Your task to perform on an android device: View the shopping cart on amazon. Add "logitech g903" to the cart on amazon, then select checkout. Image 0: 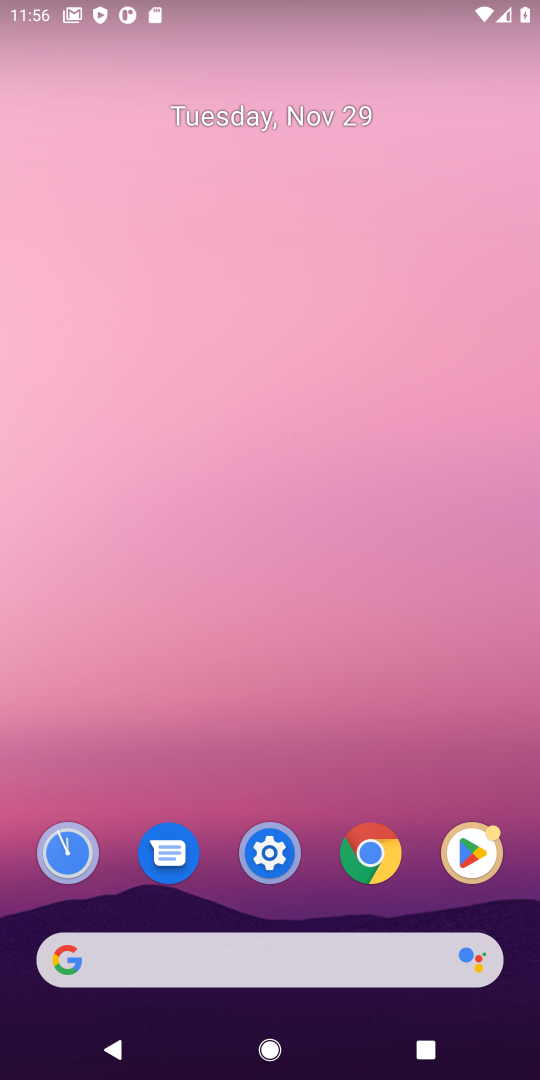
Step 0: click (370, 861)
Your task to perform on an android device: View the shopping cart on amazon. Add "logitech g903" to the cart on amazon, then select checkout. Image 1: 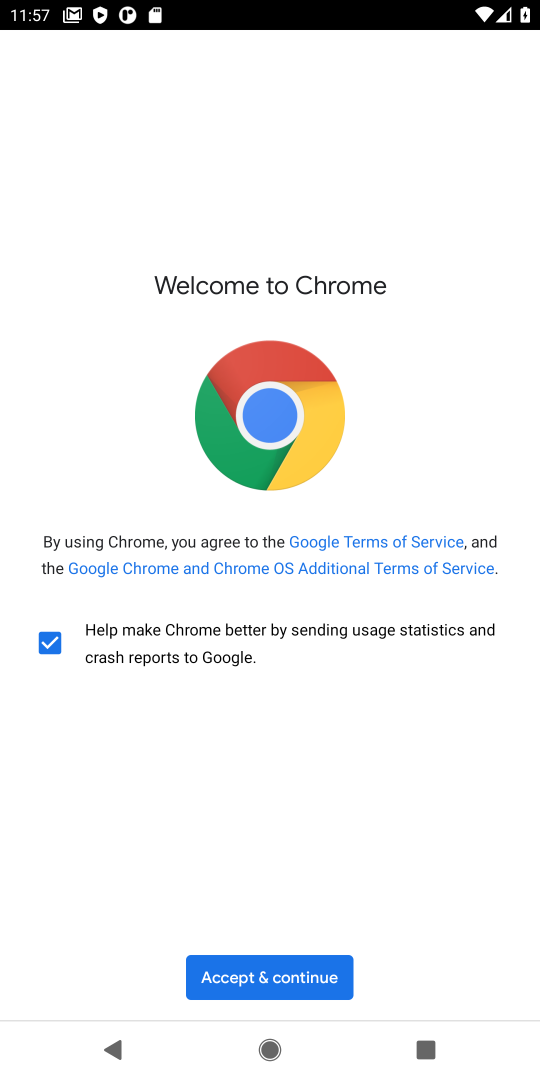
Step 1: click (207, 983)
Your task to perform on an android device: View the shopping cart on amazon. Add "logitech g903" to the cart on amazon, then select checkout. Image 2: 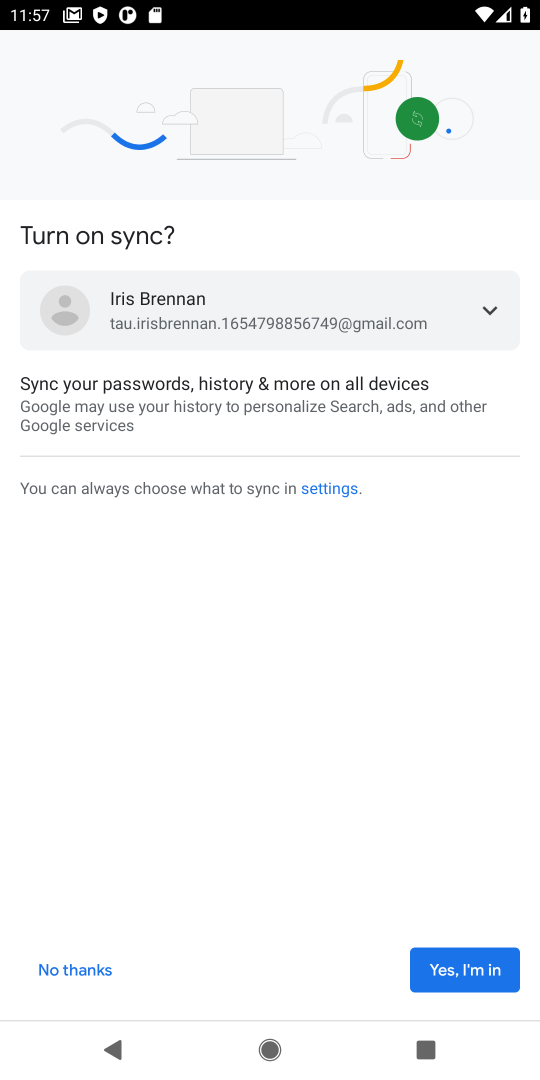
Step 2: click (91, 966)
Your task to perform on an android device: View the shopping cart on amazon. Add "logitech g903" to the cart on amazon, then select checkout. Image 3: 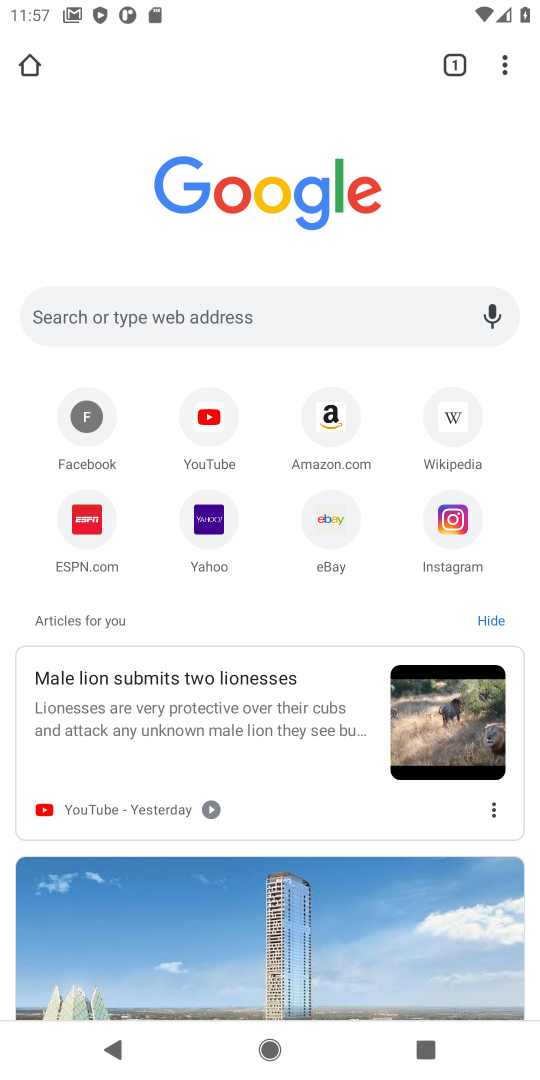
Step 3: click (347, 427)
Your task to perform on an android device: View the shopping cart on amazon. Add "logitech g903" to the cart on amazon, then select checkout. Image 4: 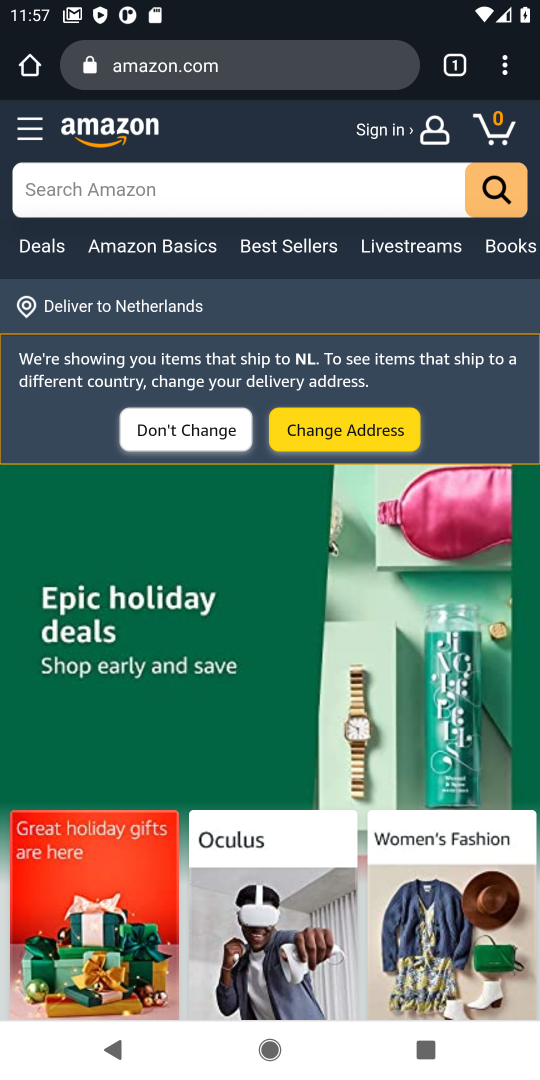
Step 4: click (497, 126)
Your task to perform on an android device: View the shopping cart on amazon. Add "logitech g903" to the cart on amazon, then select checkout. Image 5: 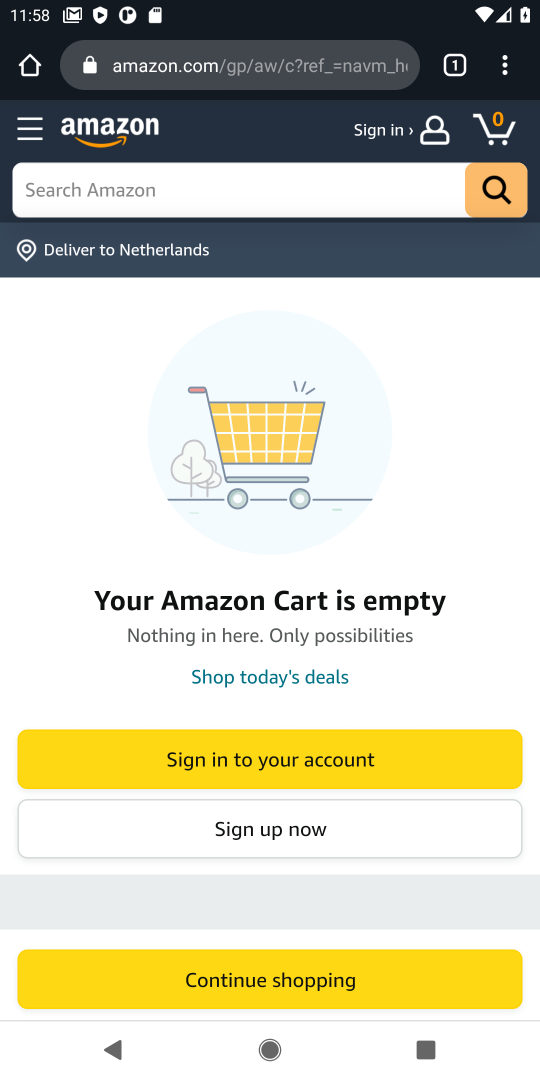
Step 5: click (100, 176)
Your task to perform on an android device: View the shopping cart on amazon. Add "logitech g903" to the cart on amazon, then select checkout. Image 6: 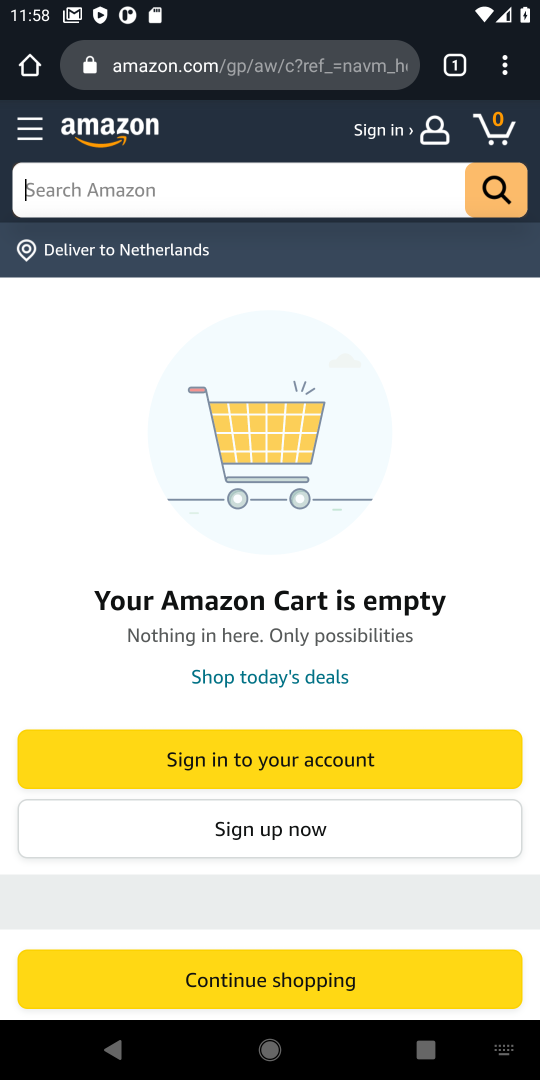
Step 6: type "logitech g903"
Your task to perform on an android device: View the shopping cart on amazon. Add "logitech g903" to the cart on amazon, then select checkout. Image 7: 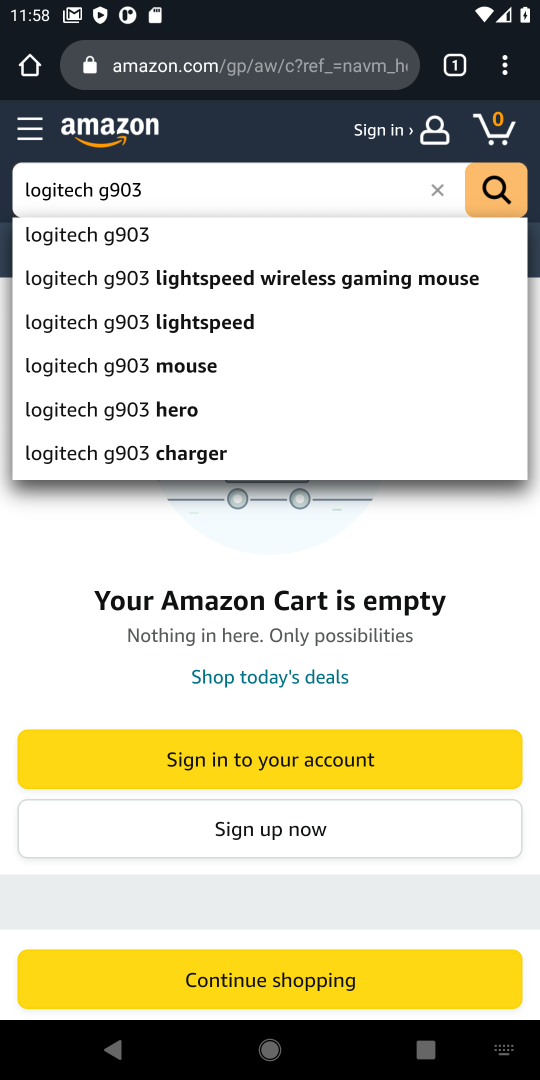
Step 7: click (111, 238)
Your task to perform on an android device: View the shopping cart on amazon. Add "logitech g903" to the cart on amazon, then select checkout. Image 8: 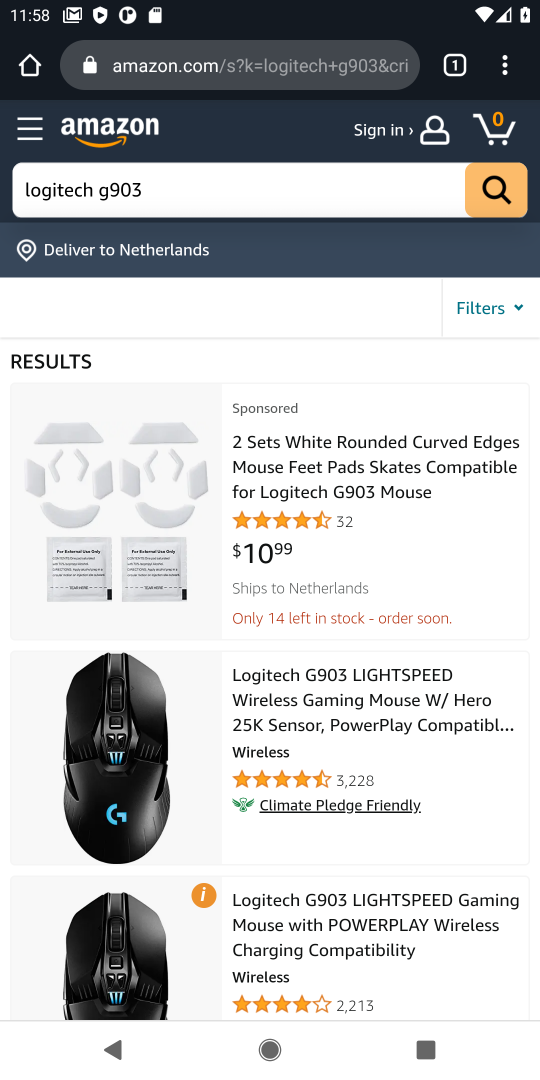
Step 8: drag from (252, 703) to (250, 466)
Your task to perform on an android device: View the shopping cart on amazon. Add "logitech g903" to the cart on amazon, then select checkout. Image 9: 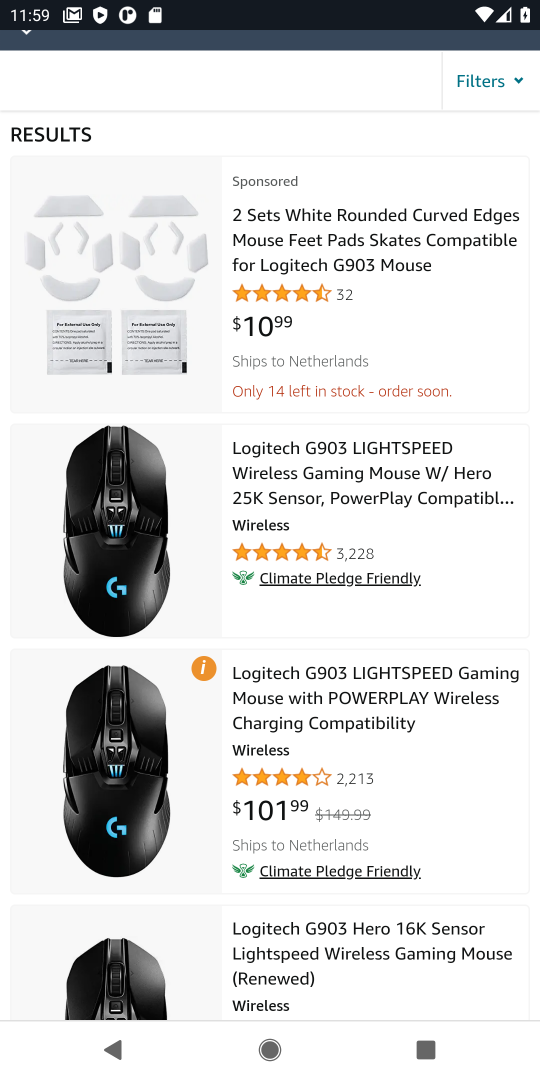
Step 9: drag from (296, 790) to (290, 572)
Your task to perform on an android device: View the shopping cart on amazon. Add "logitech g903" to the cart on amazon, then select checkout. Image 10: 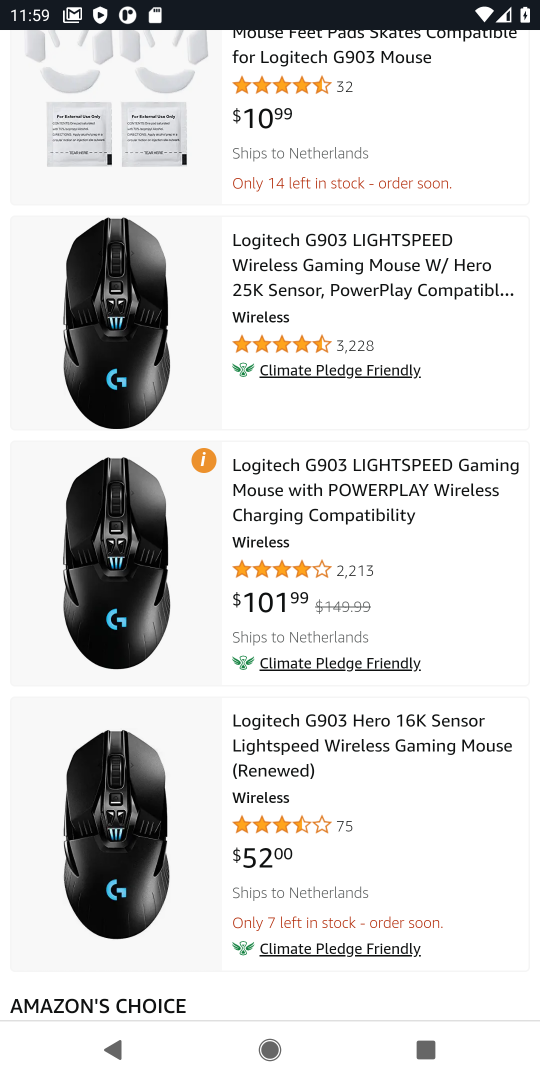
Step 10: click (272, 520)
Your task to perform on an android device: View the shopping cart on amazon. Add "logitech g903" to the cart on amazon, then select checkout. Image 11: 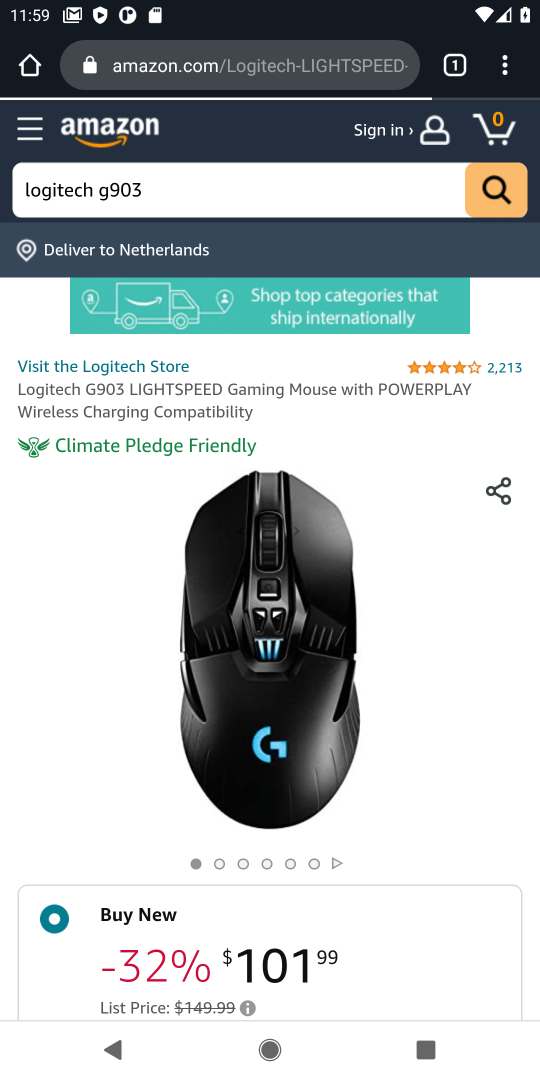
Step 11: drag from (418, 784) to (364, 435)
Your task to perform on an android device: View the shopping cart on amazon. Add "logitech g903" to the cart on amazon, then select checkout. Image 12: 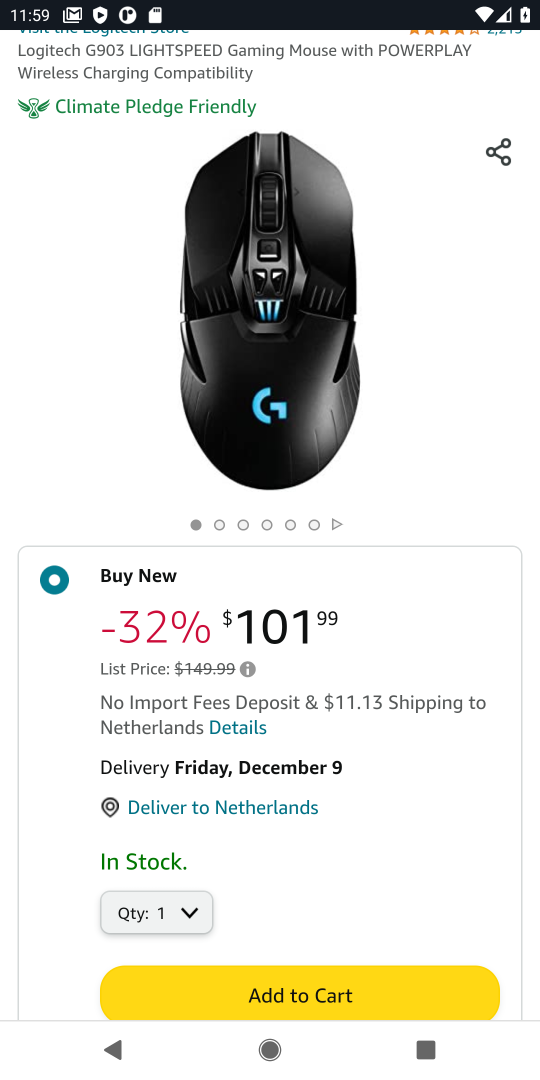
Step 12: drag from (395, 702) to (377, 587)
Your task to perform on an android device: View the shopping cart on amazon. Add "logitech g903" to the cart on amazon, then select checkout. Image 13: 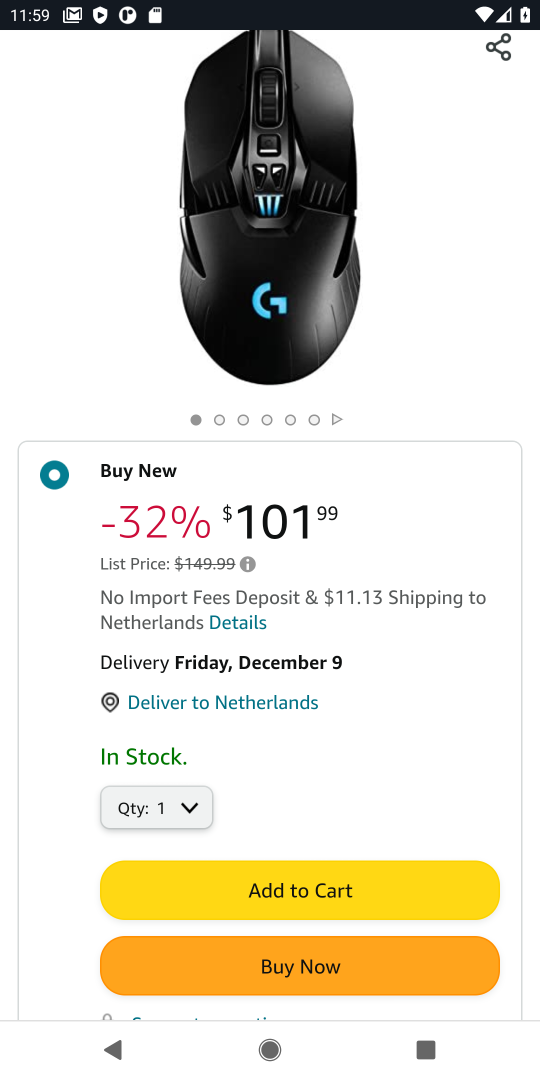
Step 13: click (310, 881)
Your task to perform on an android device: View the shopping cart on amazon. Add "logitech g903" to the cart on amazon, then select checkout. Image 14: 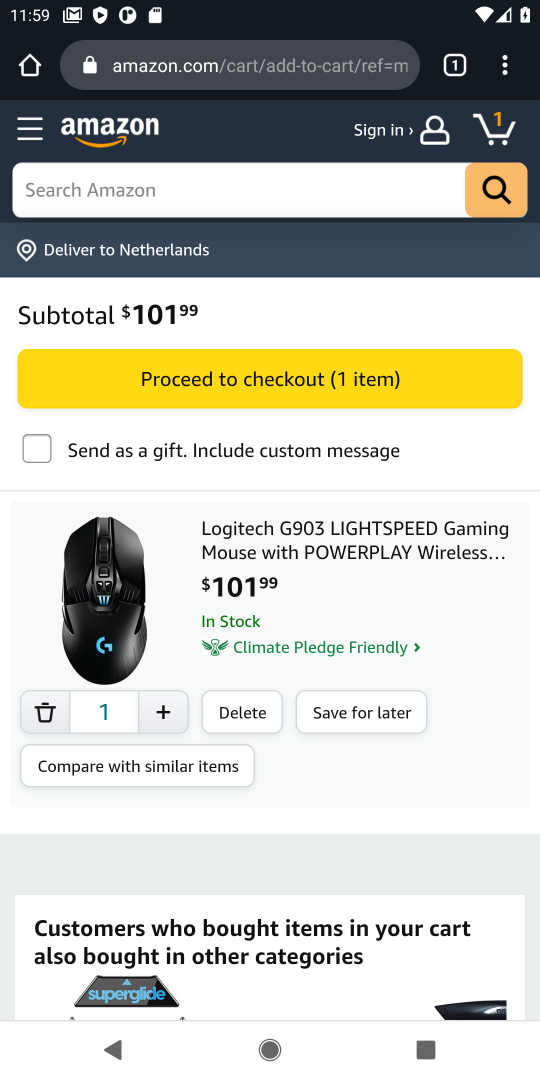
Step 14: click (242, 377)
Your task to perform on an android device: View the shopping cart on amazon. Add "logitech g903" to the cart on amazon, then select checkout. Image 15: 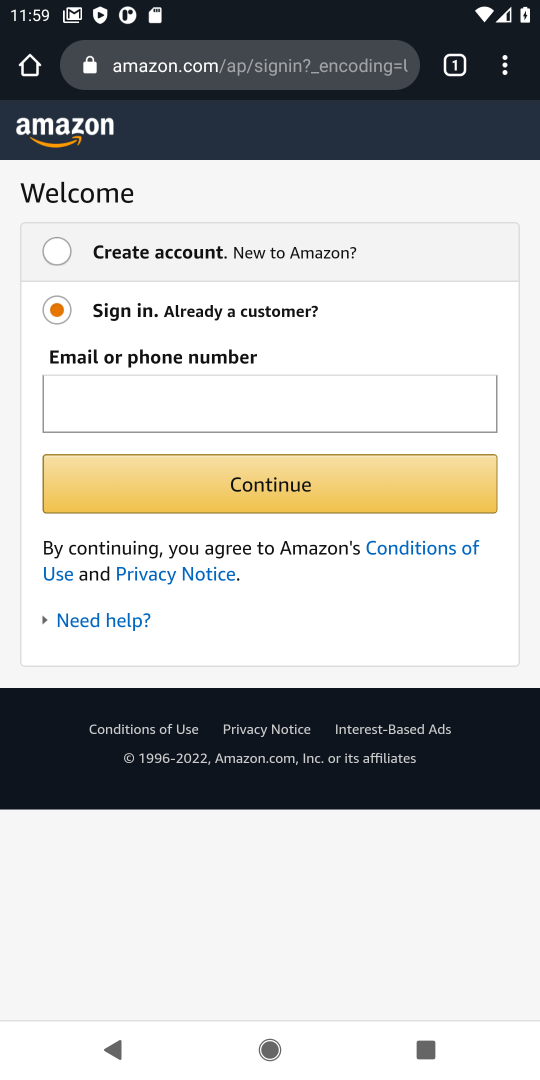
Step 15: task complete